Your task to perform on an android device: Open Maps and search for coffee Image 0: 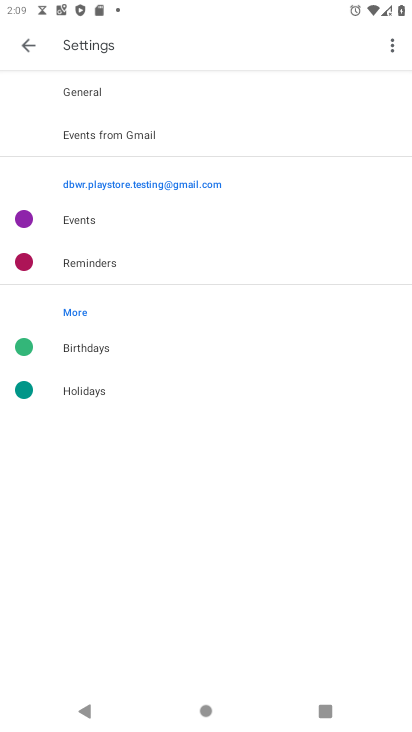
Step 0: press home button
Your task to perform on an android device: Open Maps and search for coffee Image 1: 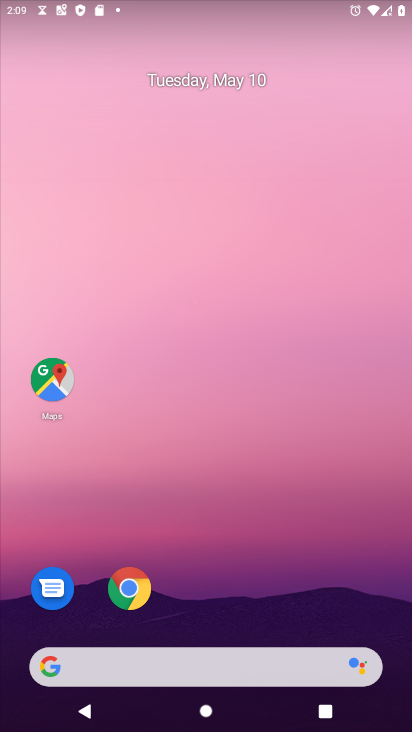
Step 1: click (49, 368)
Your task to perform on an android device: Open Maps and search for coffee Image 2: 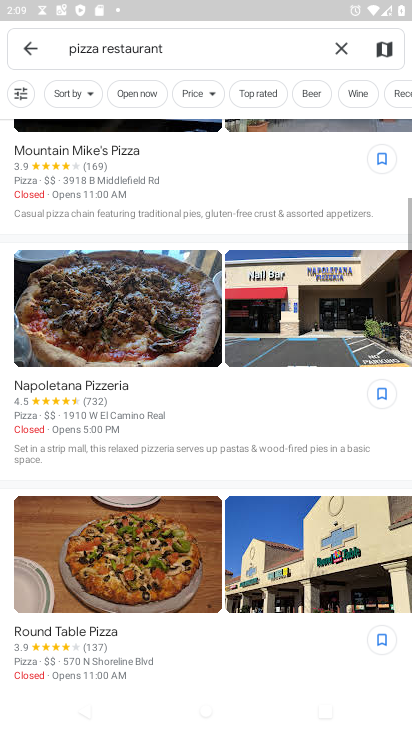
Step 2: click (347, 45)
Your task to perform on an android device: Open Maps and search for coffee Image 3: 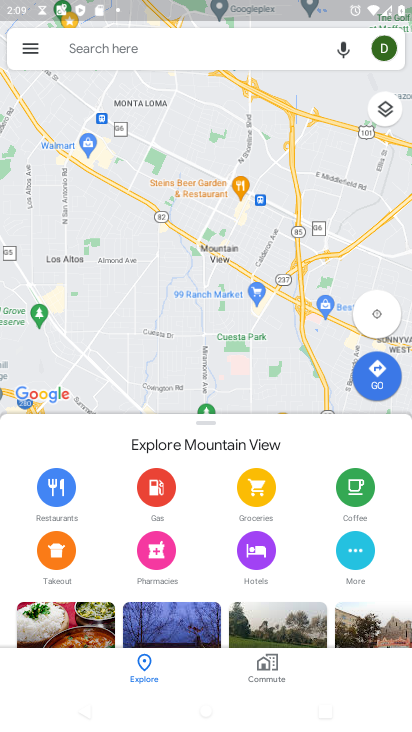
Step 3: click (197, 29)
Your task to perform on an android device: Open Maps and search for coffee Image 4: 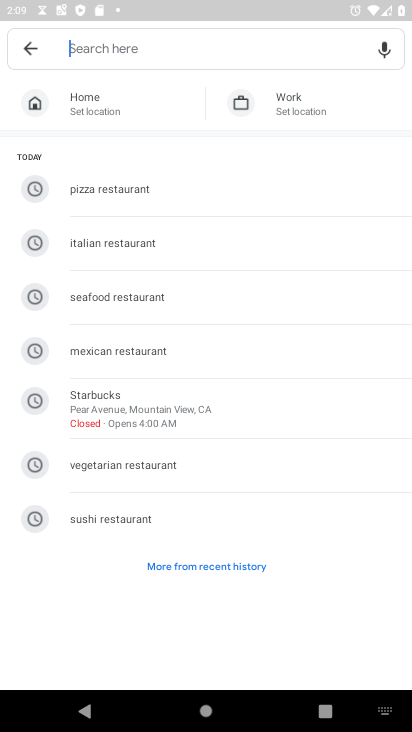
Step 4: click (135, 41)
Your task to perform on an android device: Open Maps and search for coffee Image 5: 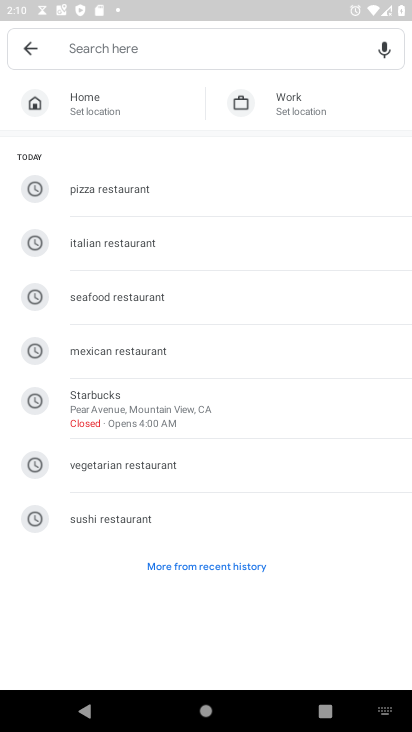
Step 5: type "coffee"
Your task to perform on an android device: Open Maps and search for coffee Image 6: 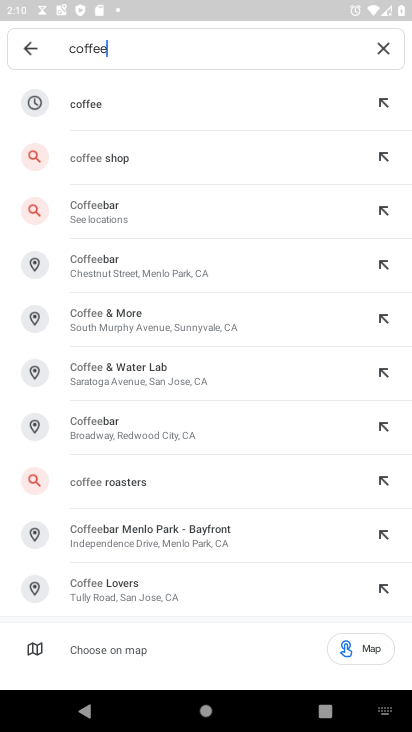
Step 6: click (165, 93)
Your task to perform on an android device: Open Maps and search for coffee Image 7: 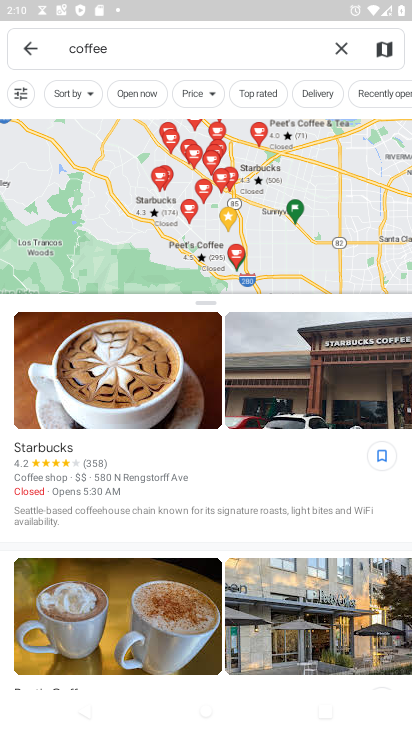
Step 7: task complete